Your task to perform on an android device: Find coffee shops on Maps Image 0: 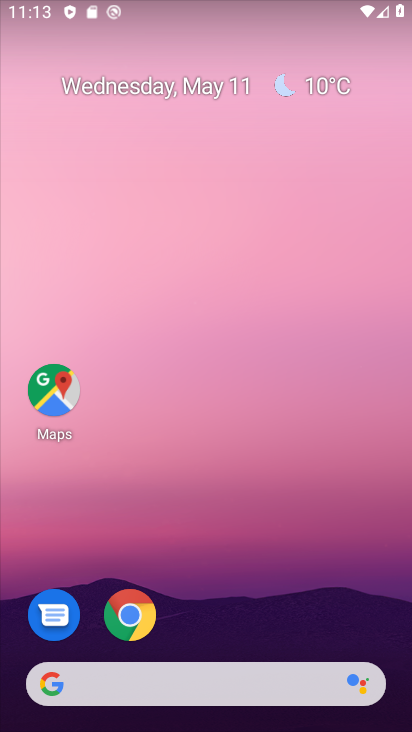
Step 0: drag from (178, 647) to (303, 195)
Your task to perform on an android device: Find coffee shops on Maps Image 1: 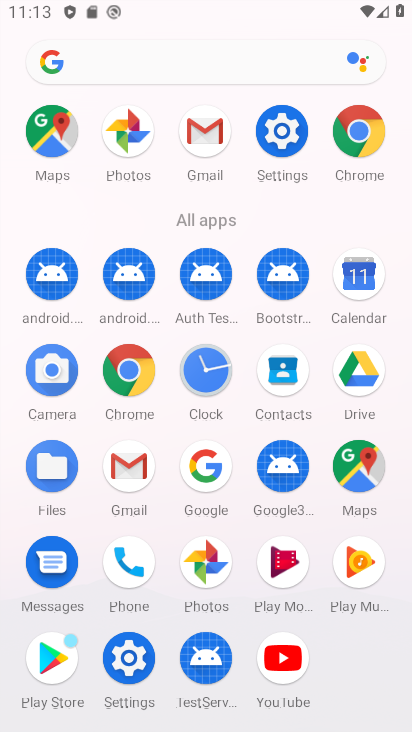
Step 1: click (356, 451)
Your task to perform on an android device: Find coffee shops on Maps Image 2: 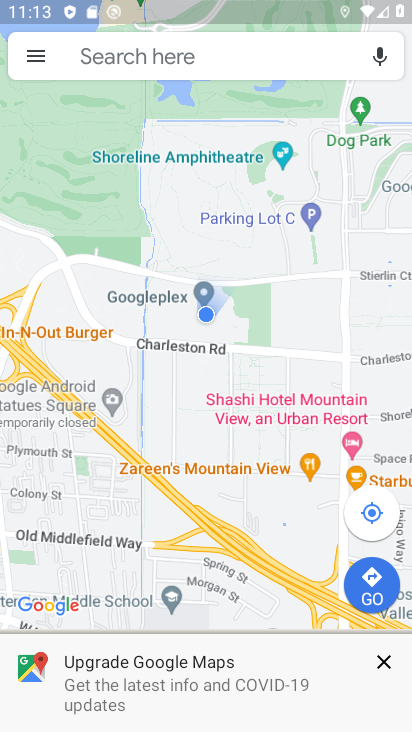
Step 2: click (183, 50)
Your task to perform on an android device: Find coffee shops on Maps Image 3: 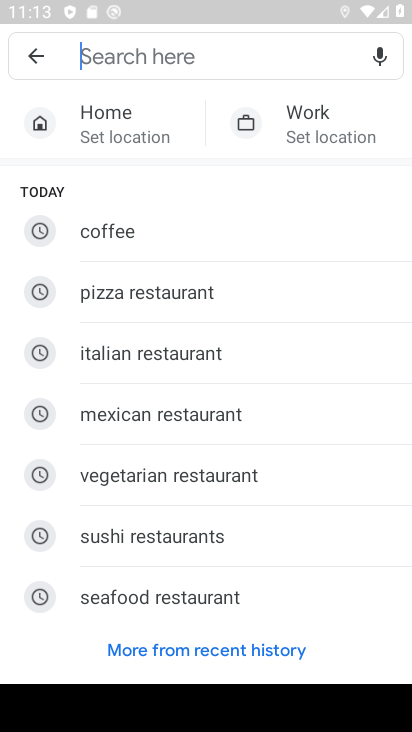
Step 3: type "Coffee shops"
Your task to perform on an android device: Find coffee shops on Maps Image 4: 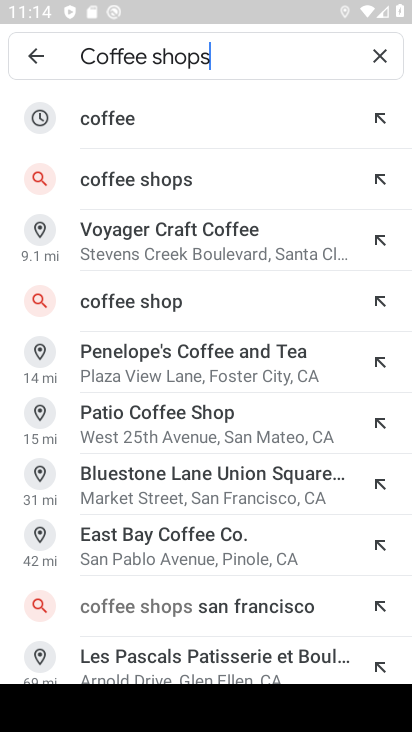
Step 4: click (205, 163)
Your task to perform on an android device: Find coffee shops on Maps Image 5: 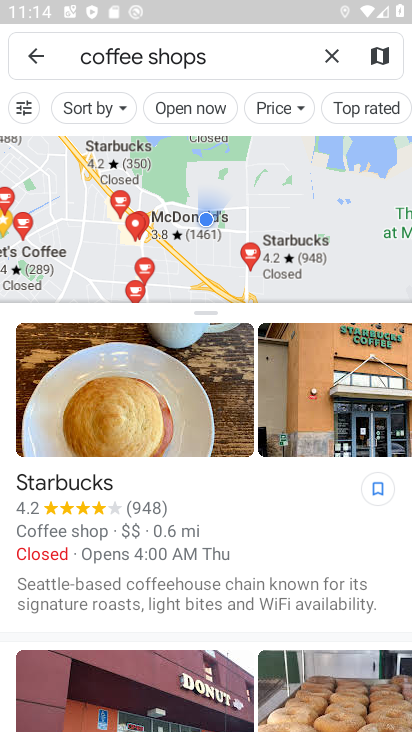
Step 5: task complete